Your task to perform on an android device: check storage Image 0: 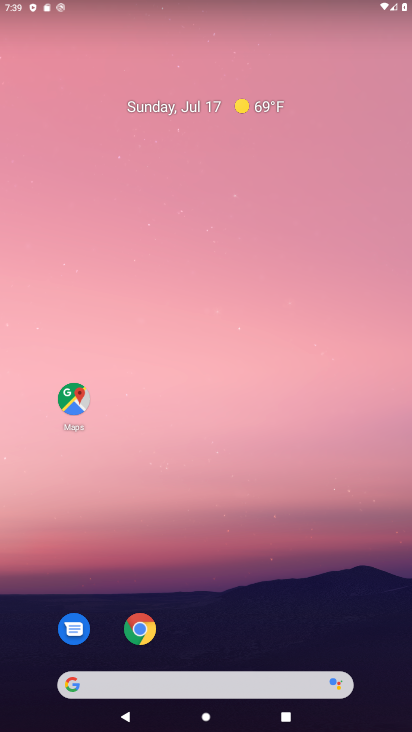
Step 0: drag from (203, 660) to (160, 199)
Your task to perform on an android device: check storage Image 1: 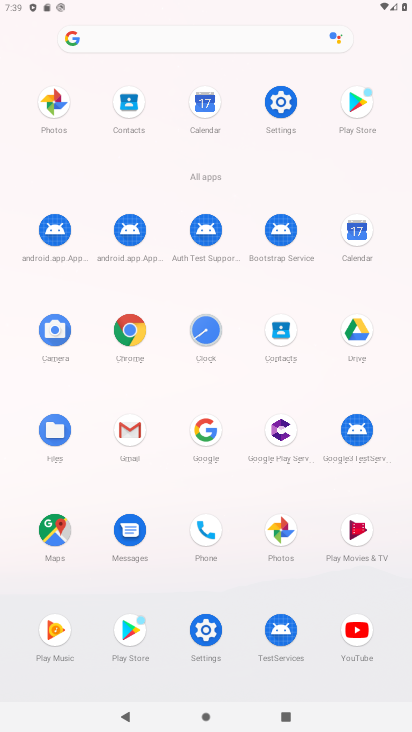
Step 1: click (284, 99)
Your task to perform on an android device: check storage Image 2: 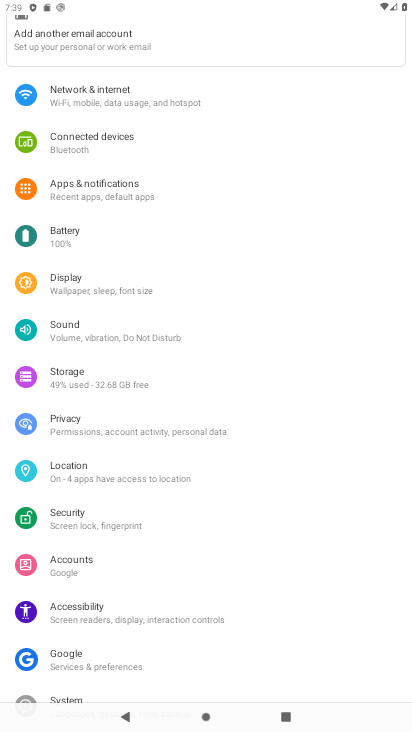
Step 2: click (101, 380)
Your task to perform on an android device: check storage Image 3: 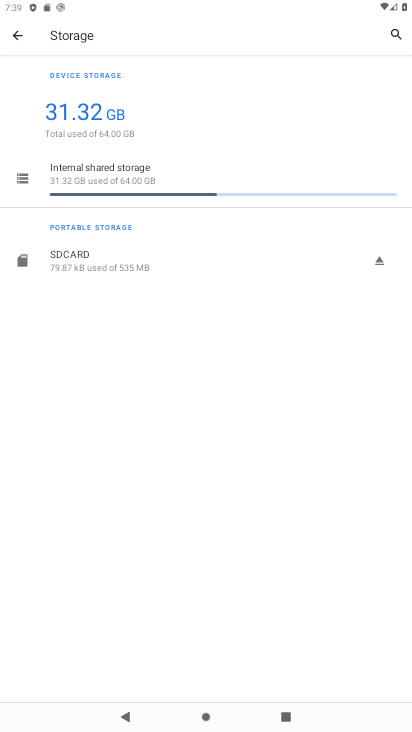
Step 3: task complete